Your task to perform on an android device: Open notification settings Image 0: 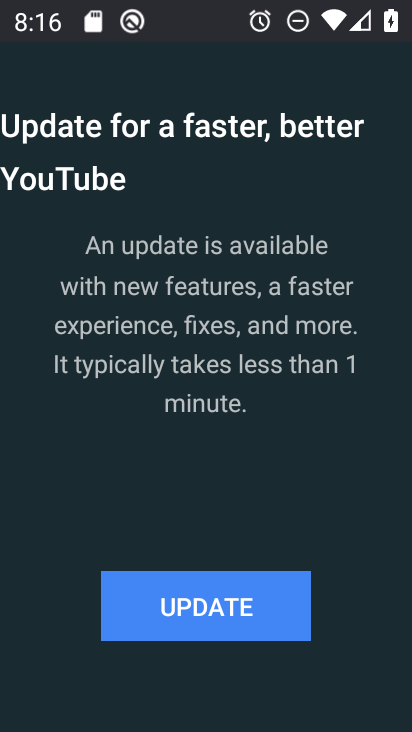
Step 0: press home button
Your task to perform on an android device: Open notification settings Image 1: 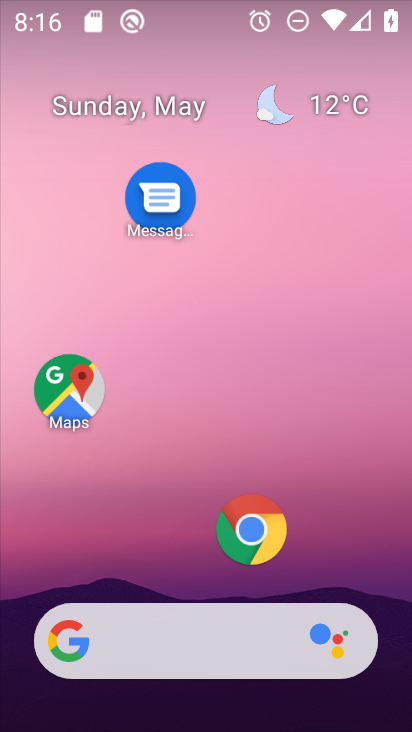
Step 1: drag from (202, 580) to (199, 60)
Your task to perform on an android device: Open notification settings Image 2: 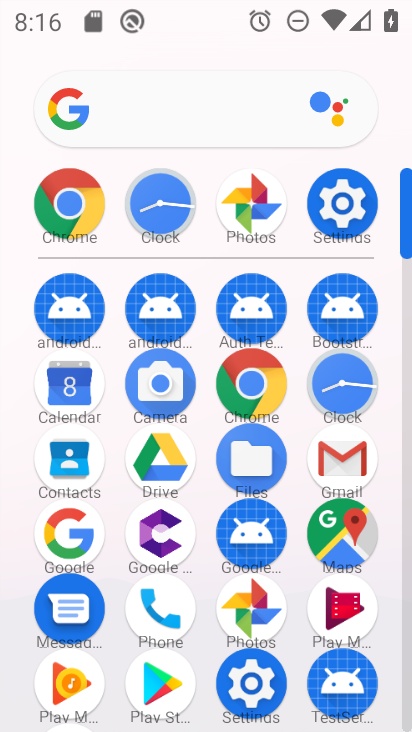
Step 2: click (346, 197)
Your task to perform on an android device: Open notification settings Image 3: 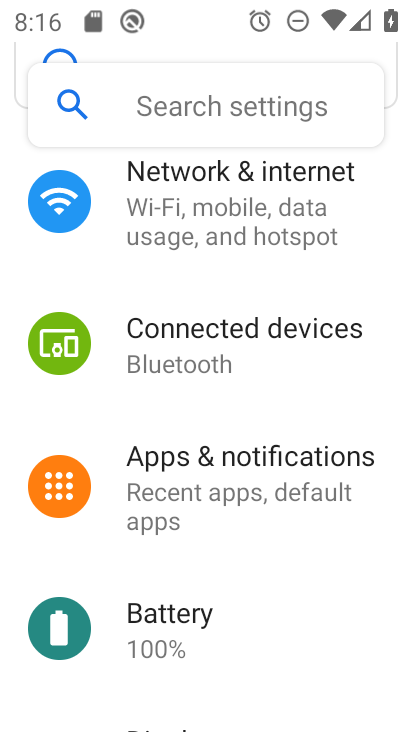
Step 3: click (227, 499)
Your task to perform on an android device: Open notification settings Image 4: 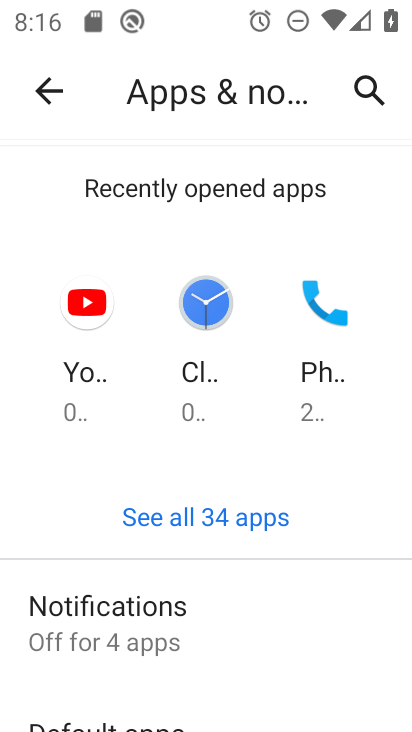
Step 4: click (193, 629)
Your task to perform on an android device: Open notification settings Image 5: 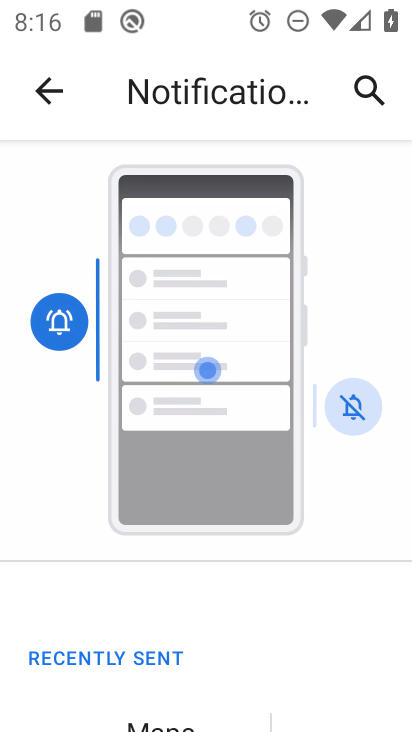
Step 5: drag from (227, 682) to (231, 274)
Your task to perform on an android device: Open notification settings Image 6: 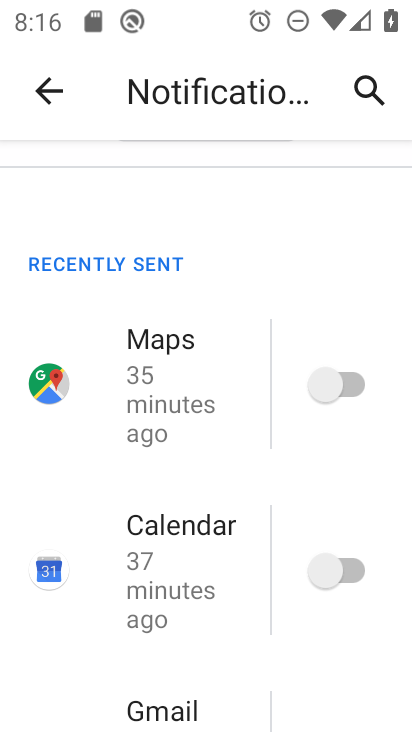
Step 6: drag from (213, 695) to (236, 227)
Your task to perform on an android device: Open notification settings Image 7: 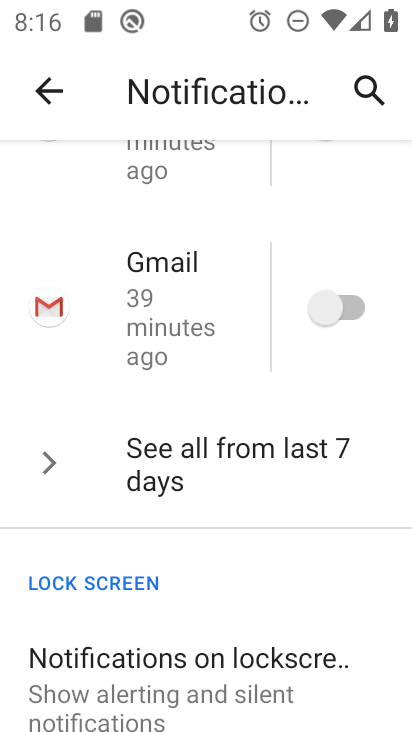
Step 7: drag from (216, 319) to (237, 616)
Your task to perform on an android device: Open notification settings Image 8: 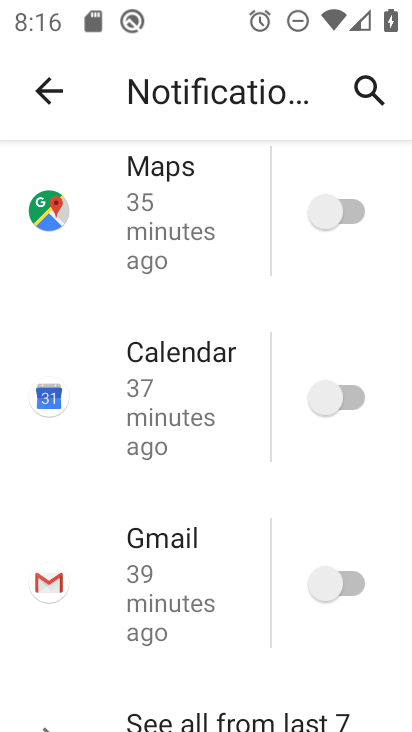
Step 8: click (341, 214)
Your task to perform on an android device: Open notification settings Image 9: 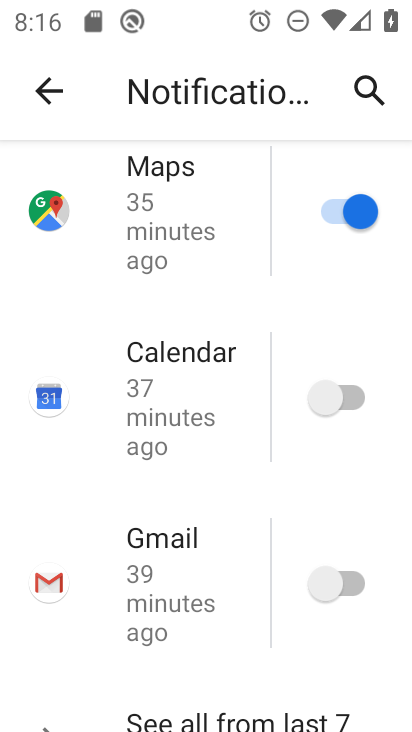
Step 9: click (349, 396)
Your task to perform on an android device: Open notification settings Image 10: 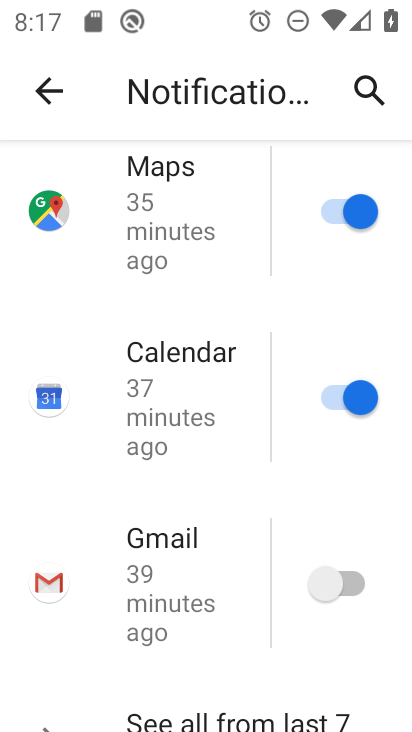
Step 10: click (348, 586)
Your task to perform on an android device: Open notification settings Image 11: 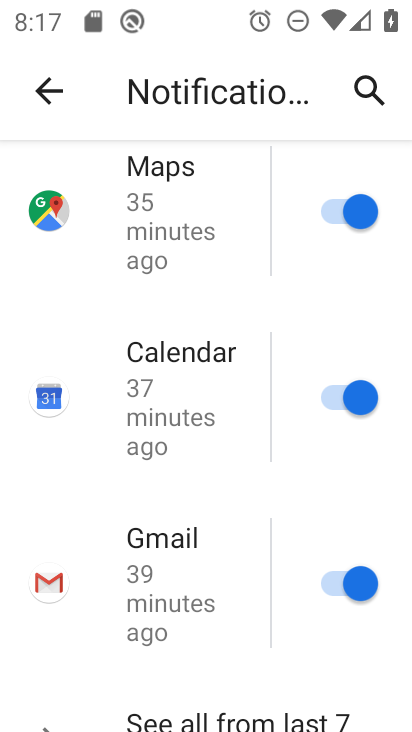
Step 11: task complete